Your task to perform on an android device: turn on showing notifications on the lock screen Image 0: 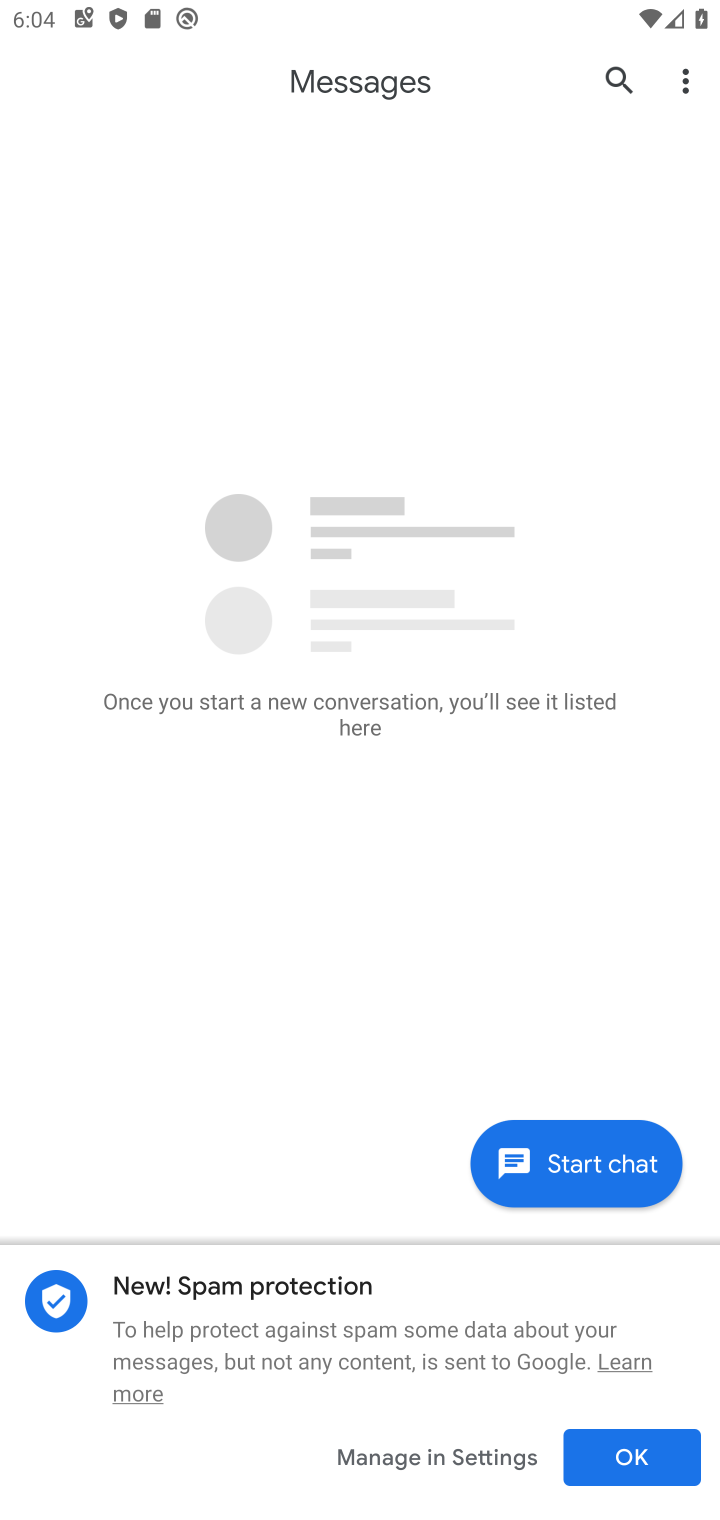
Step 0: press back button
Your task to perform on an android device: turn on showing notifications on the lock screen Image 1: 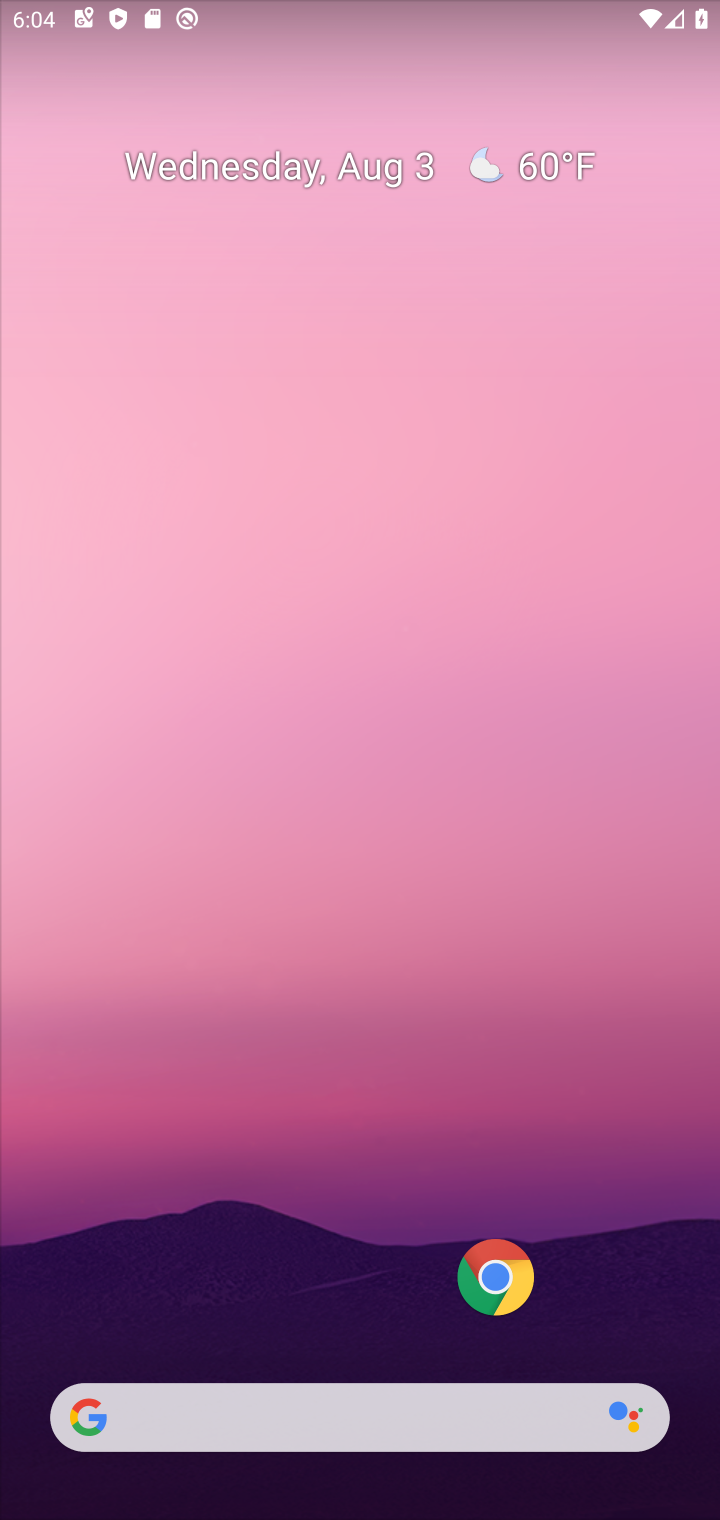
Step 1: drag from (374, 1073) to (508, 75)
Your task to perform on an android device: turn on showing notifications on the lock screen Image 2: 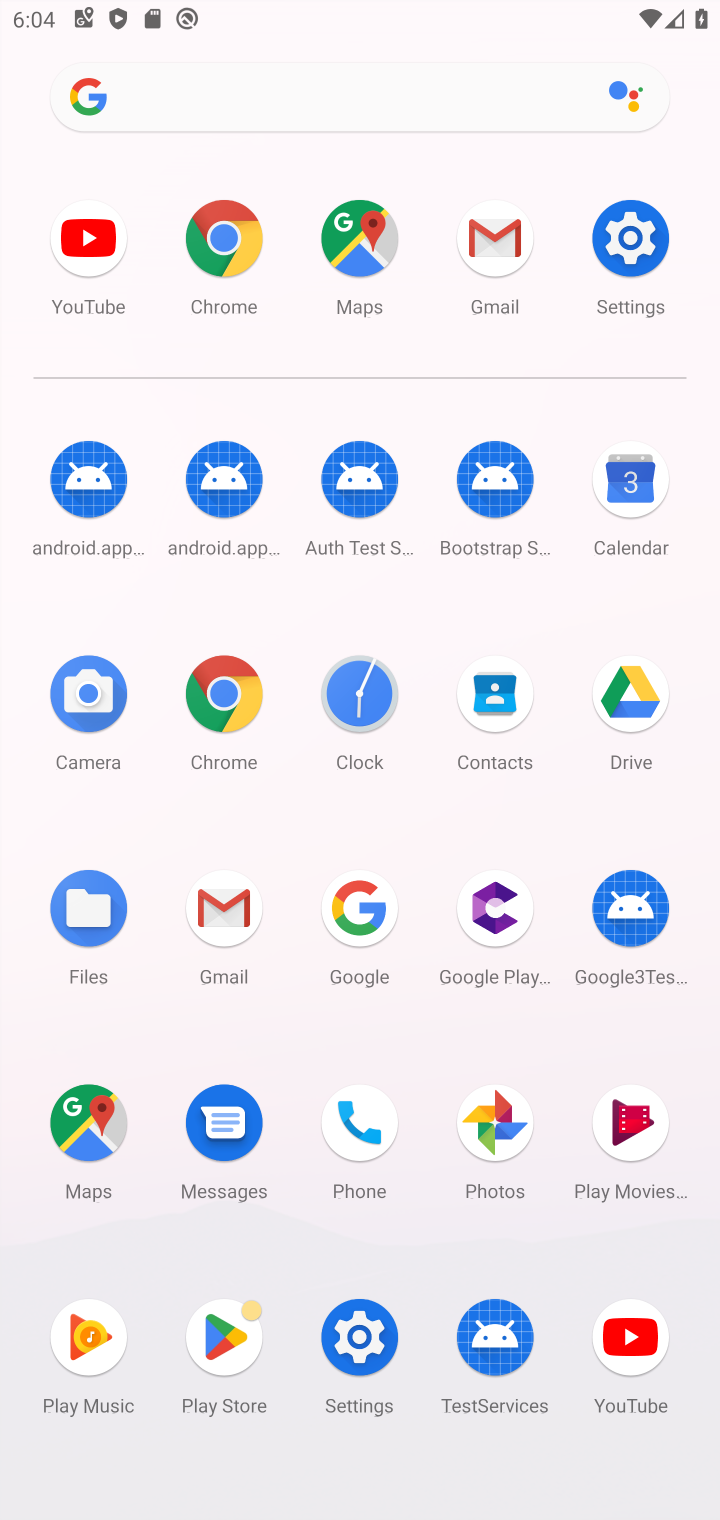
Step 2: click (636, 230)
Your task to perform on an android device: turn on showing notifications on the lock screen Image 3: 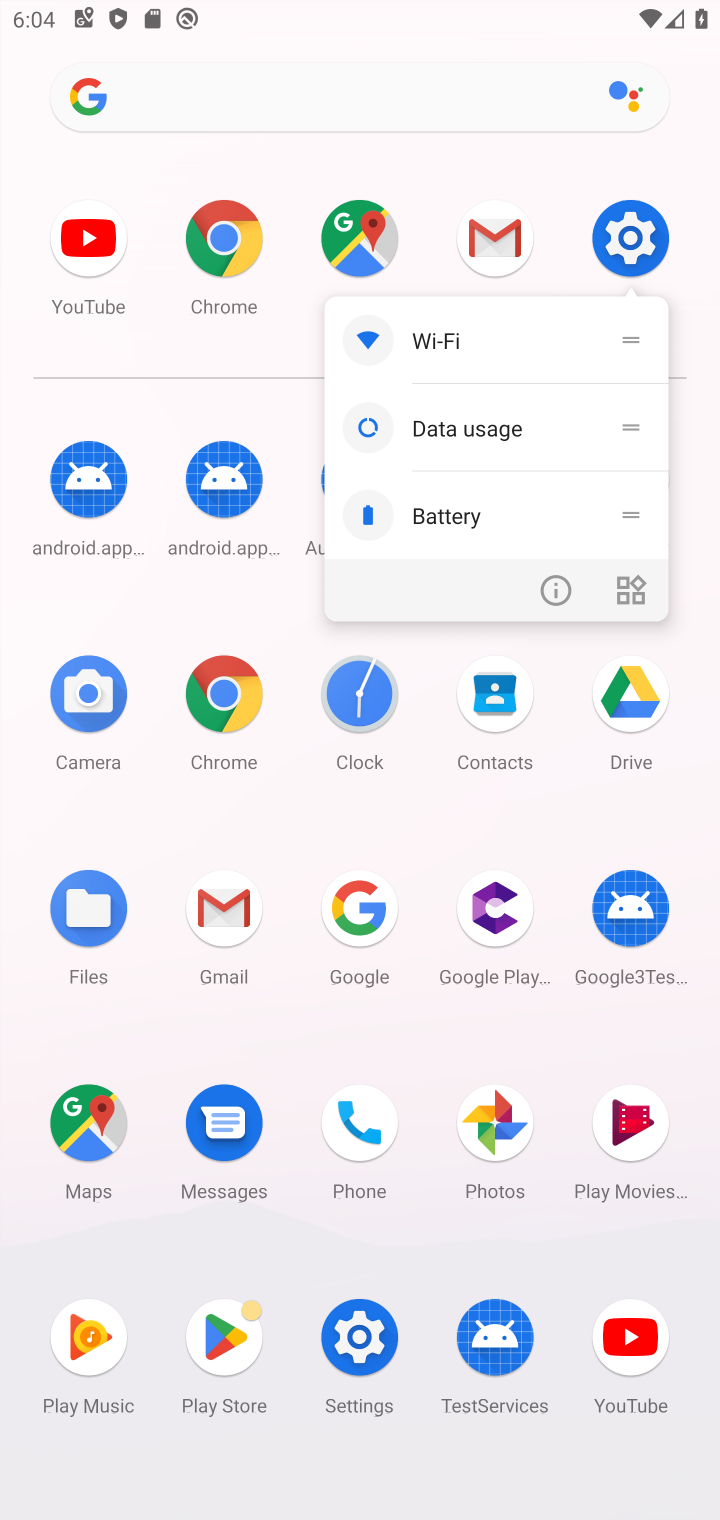
Step 3: click (636, 230)
Your task to perform on an android device: turn on showing notifications on the lock screen Image 4: 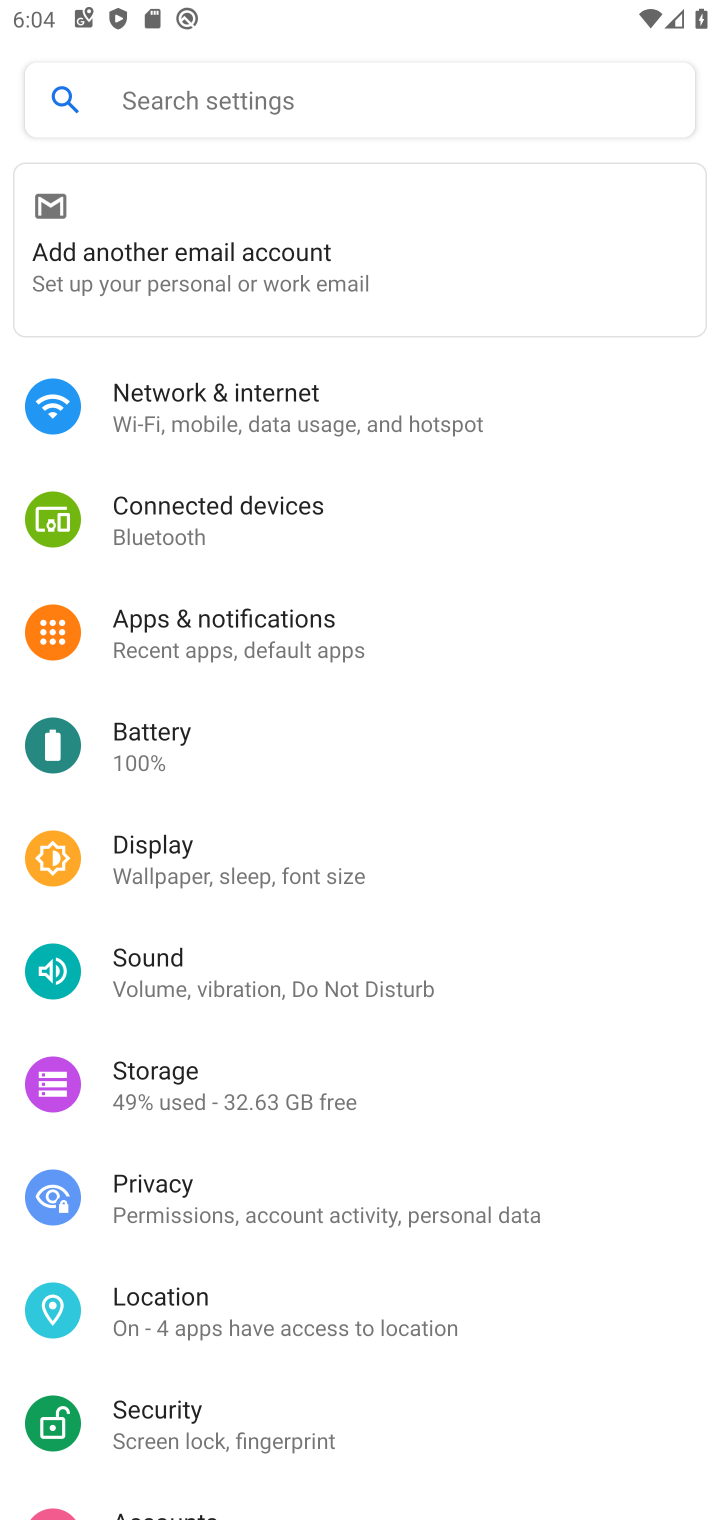
Step 4: click (216, 652)
Your task to perform on an android device: turn on showing notifications on the lock screen Image 5: 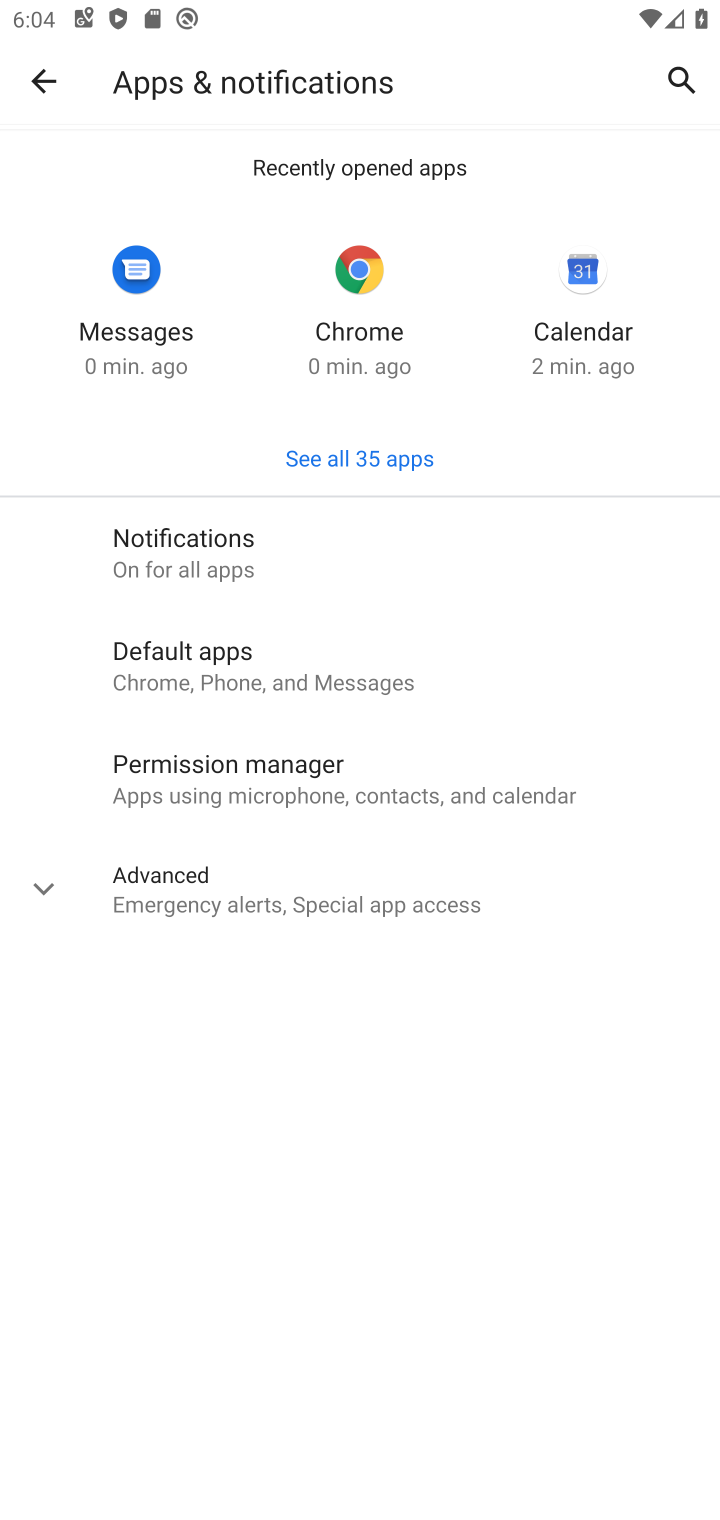
Step 5: click (227, 547)
Your task to perform on an android device: turn on showing notifications on the lock screen Image 6: 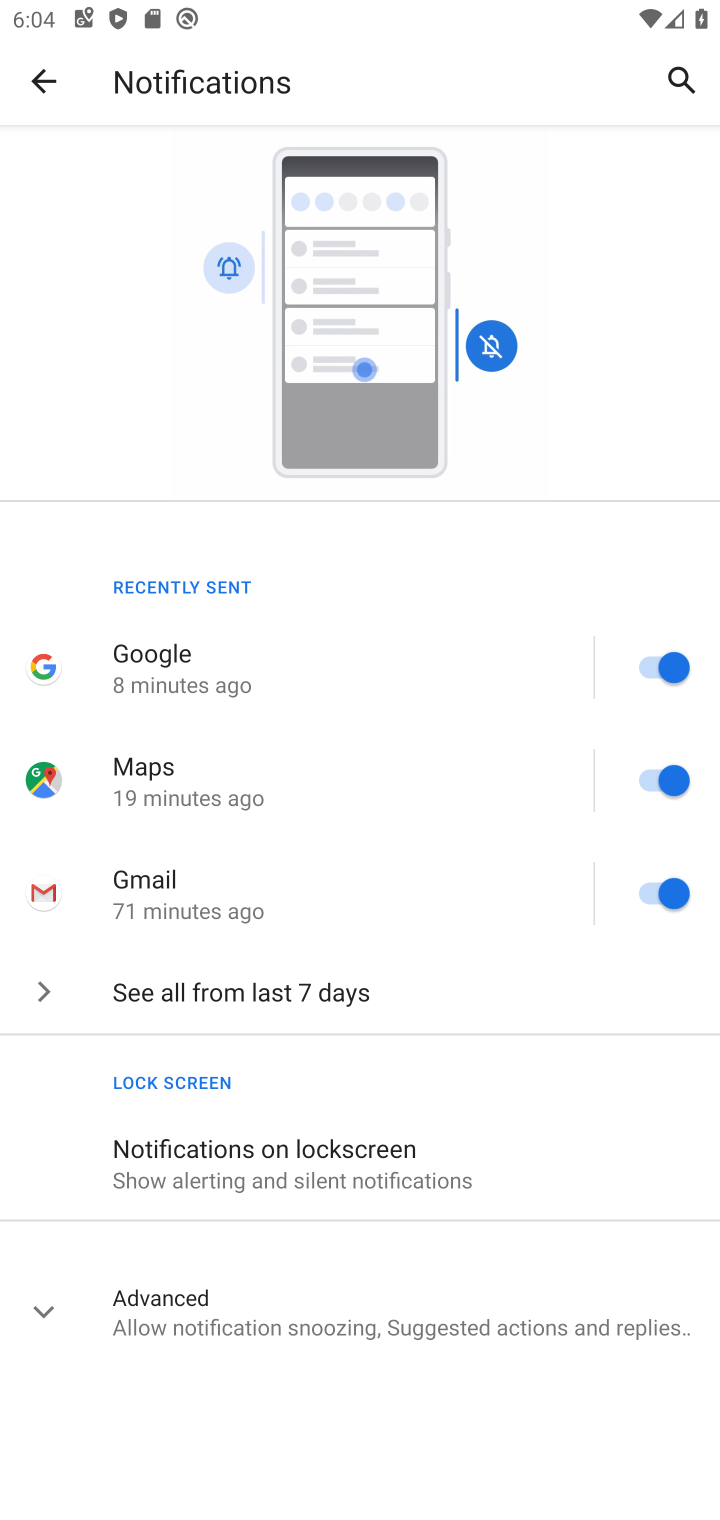
Step 6: click (320, 1171)
Your task to perform on an android device: turn on showing notifications on the lock screen Image 7: 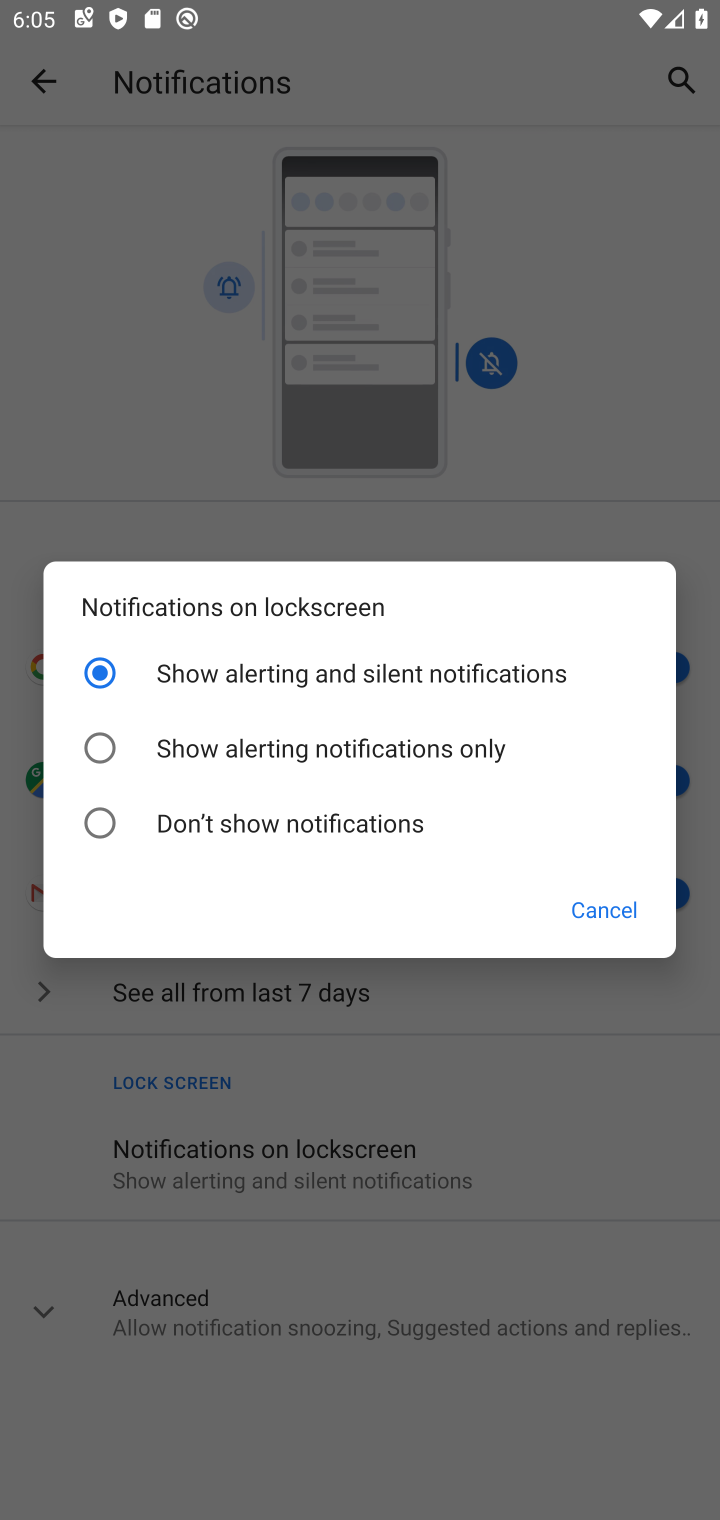
Step 7: task complete